Your task to perform on an android device: toggle notification dots Image 0: 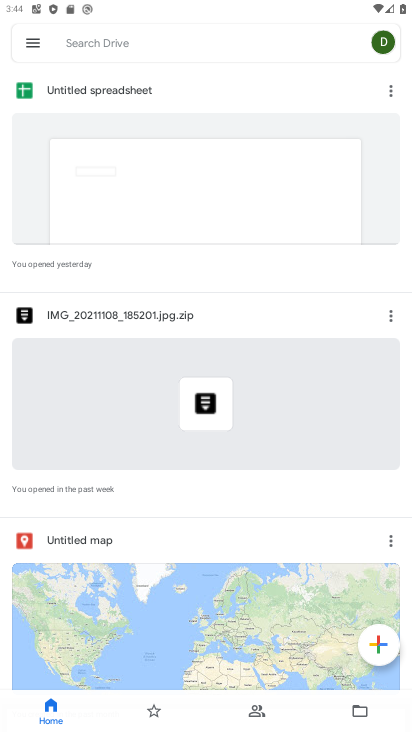
Step 0: press home button
Your task to perform on an android device: toggle notification dots Image 1: 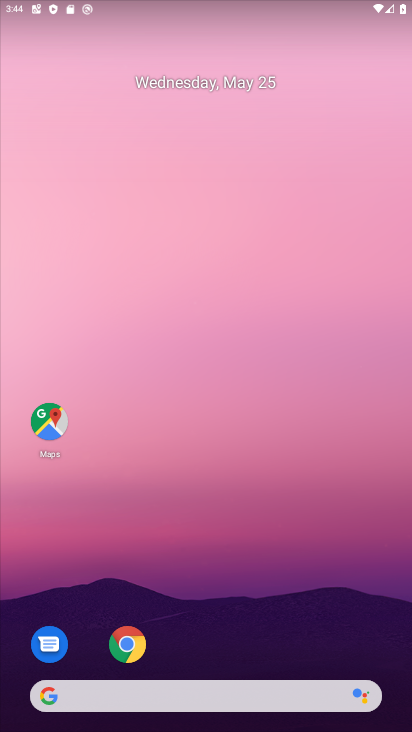
Step 1: drag from (245, 662) to (280, 77)
Your task to perform on an android device: toggle notification dots Image 2: 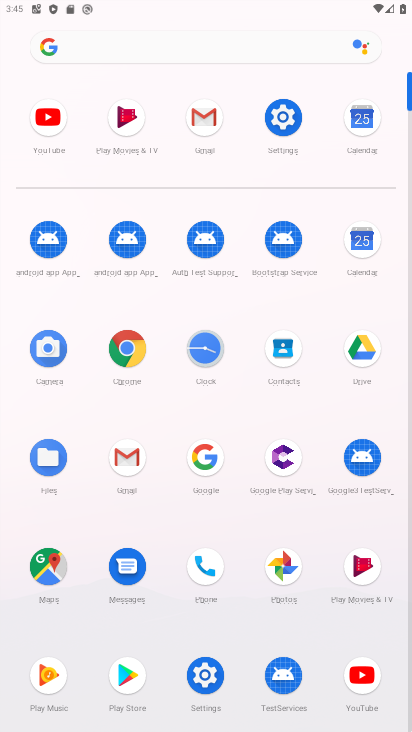
Step 2: click (285, 114)
Your task to perform on an android device: toggle notification dots Image 3: 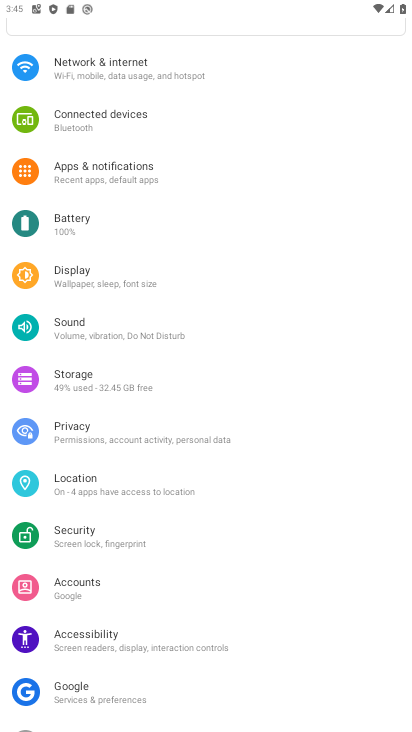
Step 3: click (122, 166)
Your task to perform on an android device: toggle notification dots Image 4: 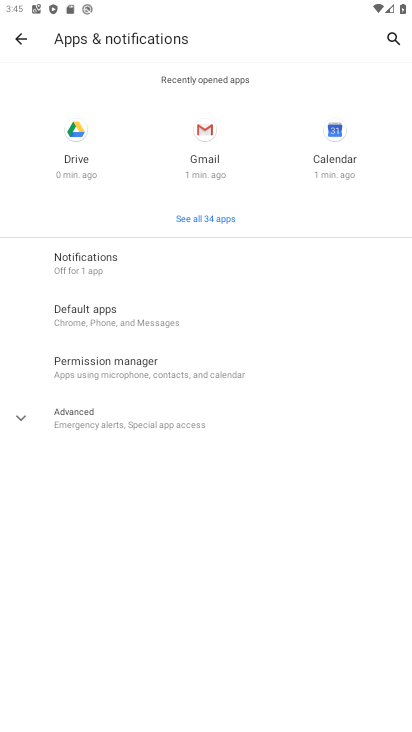
Step 4: click (84, 261)
Your task to perform on an android device: toggle notification dots Image 5: 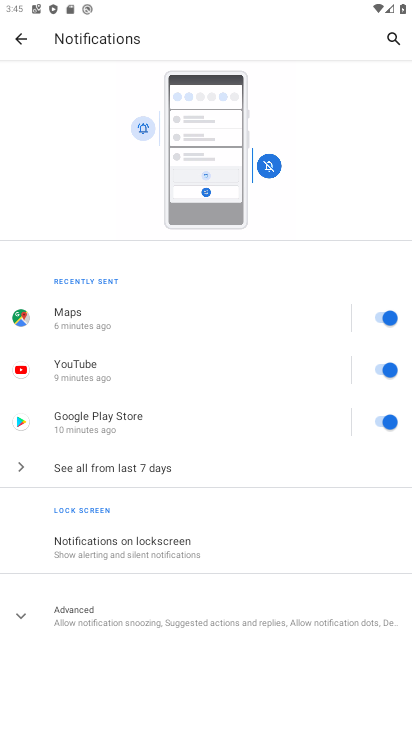
Step 5: click (17, 622)
Your task to perform on an android device: toggle notification dots Image 6: 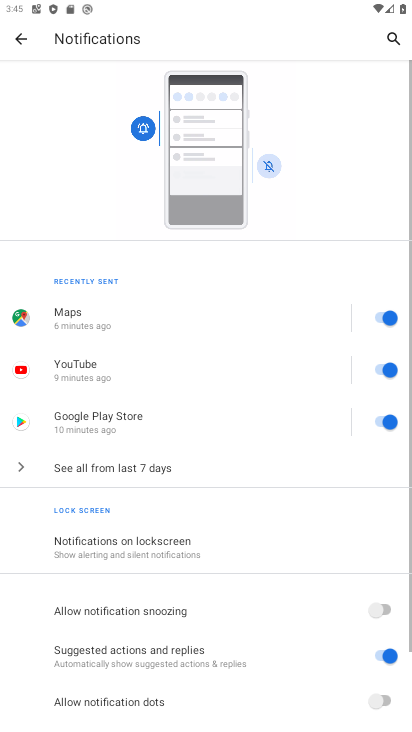
Step 6: drag from (198, 628) to (232, 267)
Your task to perform on an android device: toggle notification dots Image 7: 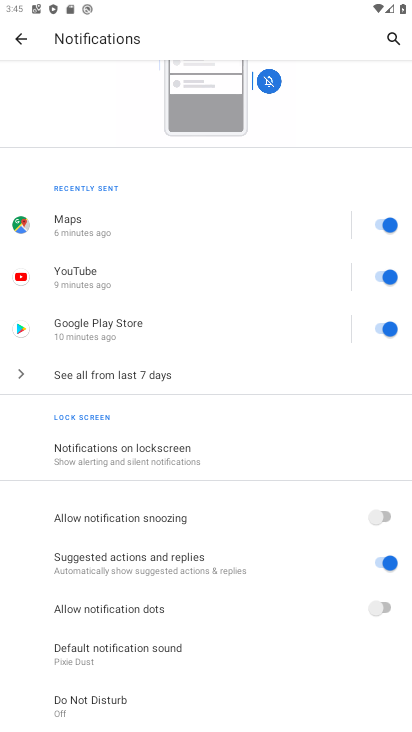
Step 7: click (378, 609)
Your task to perform on an android device: toggle notification dots Image 8: 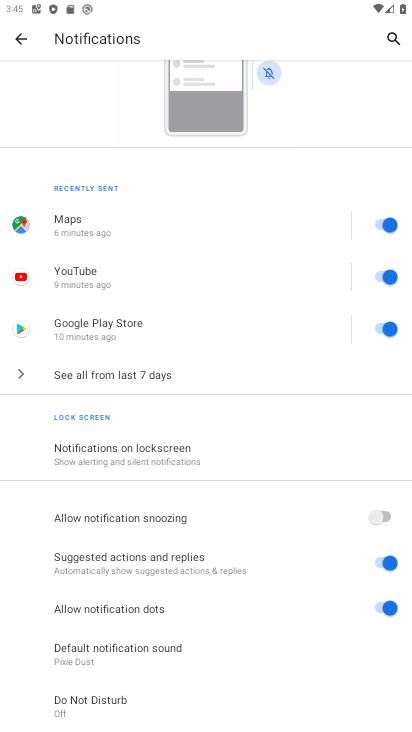
Step 8: task complete